Your task to perform on an android device: check out phone information Image 0: 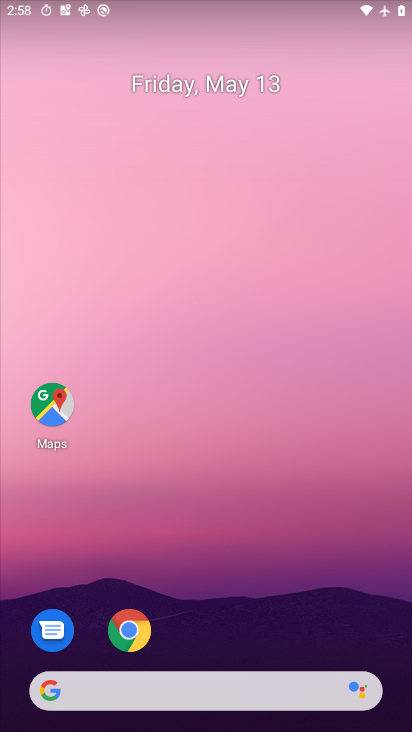
Step 0: drag from (254, 566) to (294, 191)
Your task to perform on an android device: check out phone information Image 1: 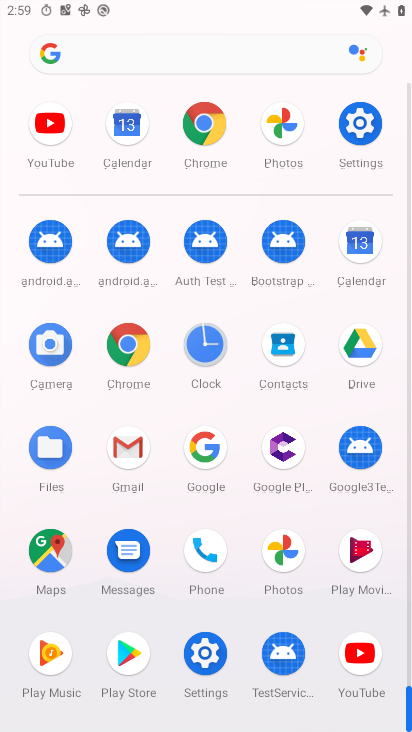
Step 1: click (221, 656)
Your task to perform on an android device: check out phone information Image 2: 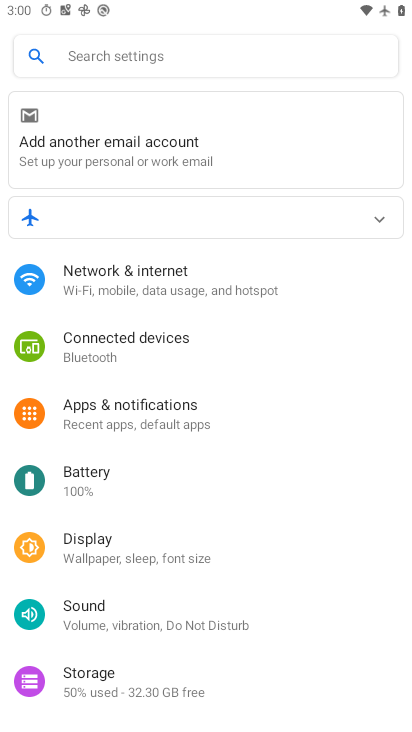
Step 2: drag from (208, 691) to (312, 179)
Your task to perform on an android device: check out phone information Image 3: 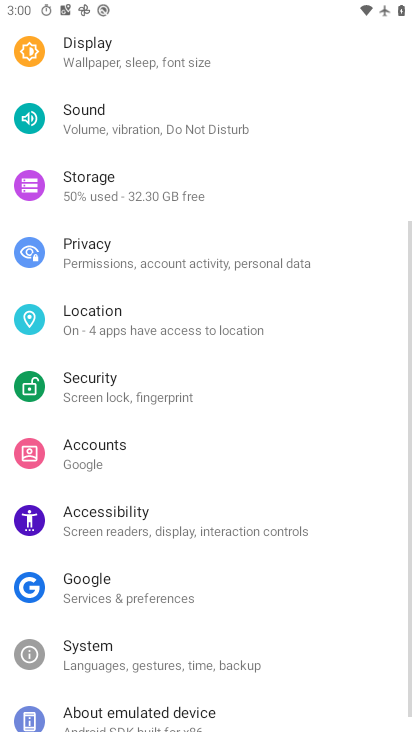
Step 3: drag from (319, 573) to (338, 4)
Your task to perform on an android device: check out phone information Image 4: 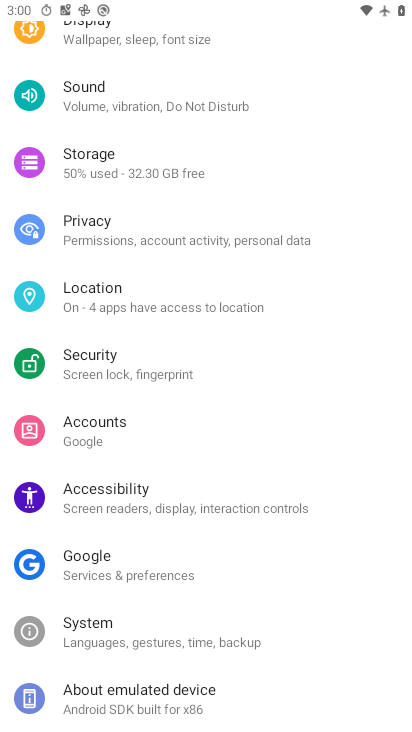
Step 4: click (231, 711)
Your task to perform on an android device: check out phone information Image 5: 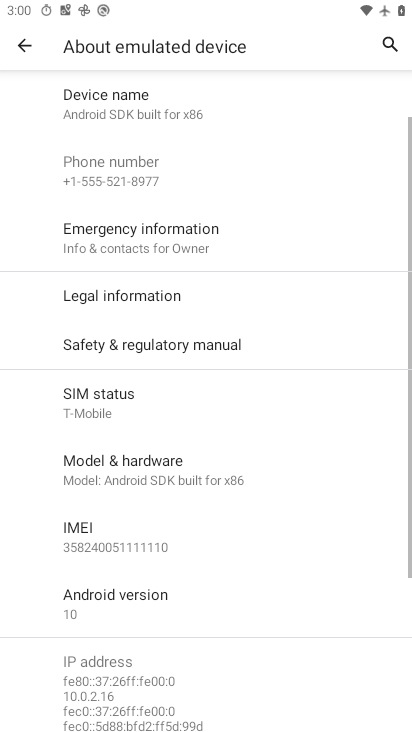
Step 5: task complete